Your task to perform on an android device: see tabs open on other devices in the chrome app Image 0: 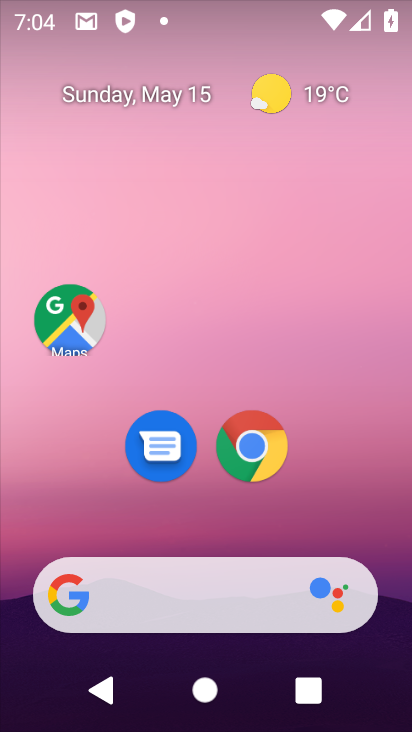
Step 0: drag from (265, 628) to (230, 35)
Your task to perform on an android device: see tabs open on other devices in the chrome app Image 1: 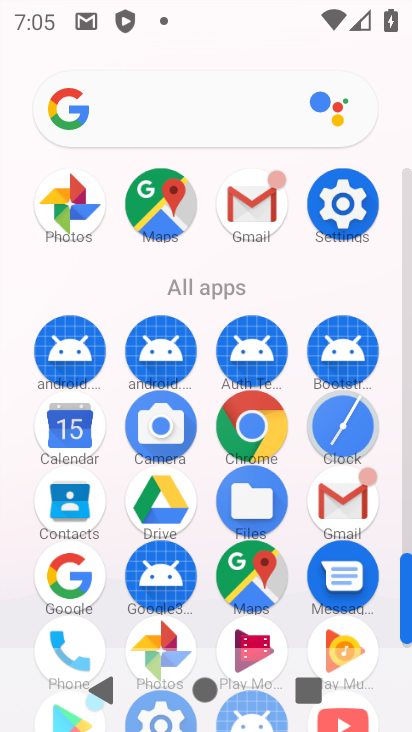
Step 1: click (257, 421)
Your task to perform on an android device: see tabs open on other devices in the chrome app Image 2: 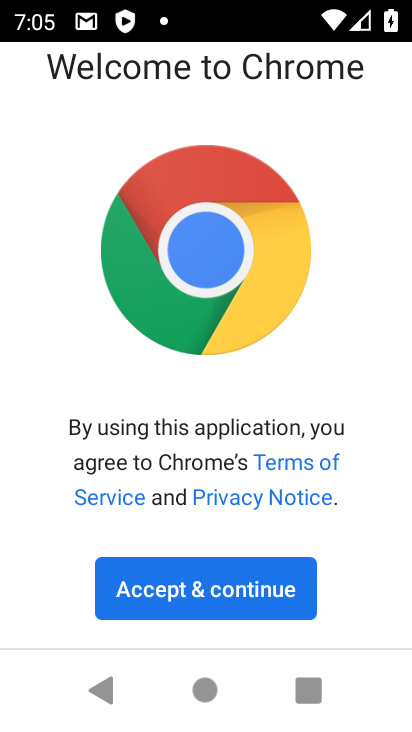
Step 2: click (266, 563)
Your task to perform on an android device: see tabs open on other devices in the chrome app Image 3: 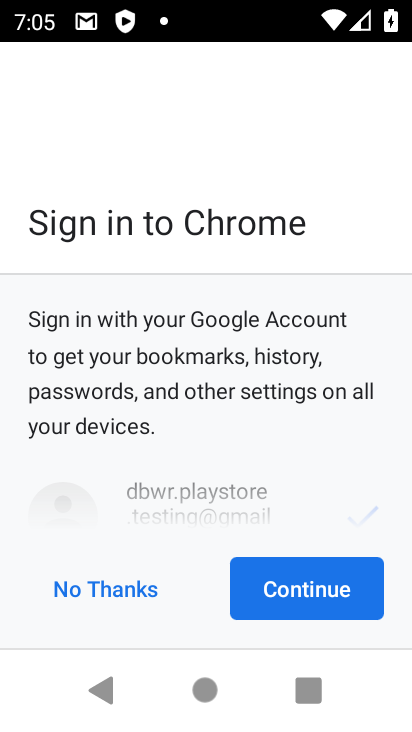
Step 3: click (283, 595)
Your task to perform on an android device: see tabs open on other devices in the chrome app Image 4: 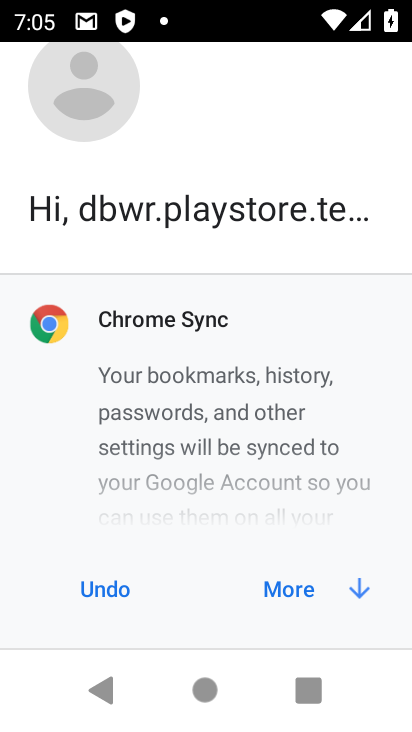
Step 4: click (349, 594)
Your task to perform on an android device: see tabs open on other devices in the chrome app Image 5: 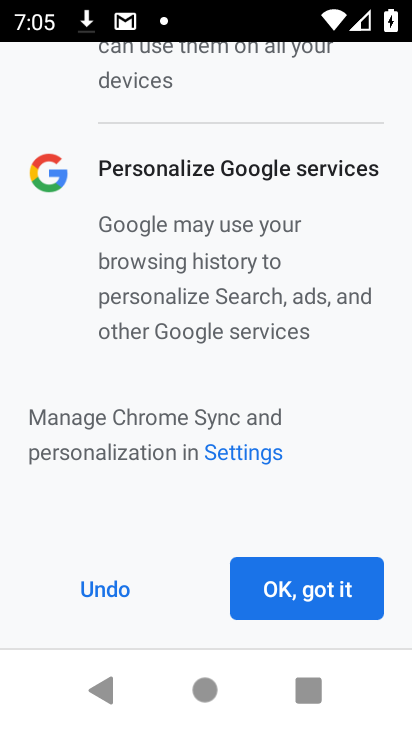
Step 5: click (329, 578)
Your task to perform on an android device: see tabs open on other devices in the chrome app Image 6: 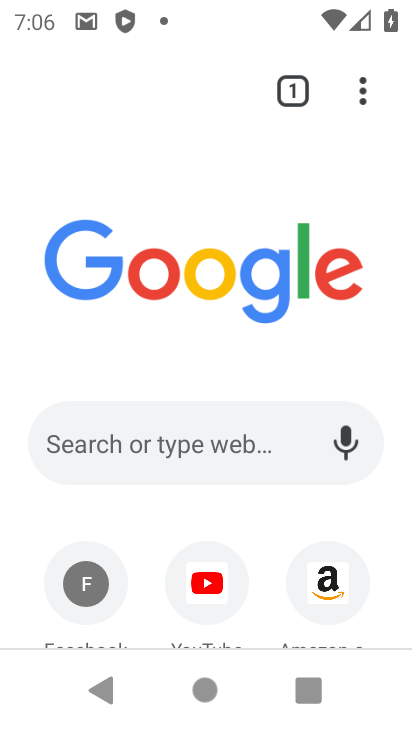
Step 6: click (295, 83)
Your task to perform on an android device: see tabs open on other devices in the chrome app Image 7: 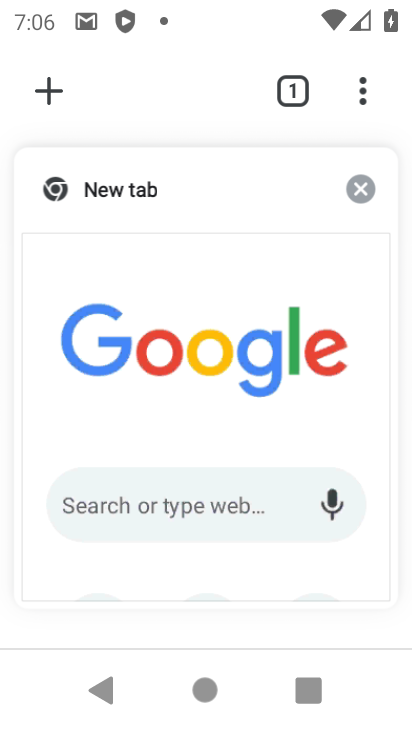
Step 7: click (47, 89)
Your task to perform on an android device: see tabs open on other devices in the chrome app Image 8: 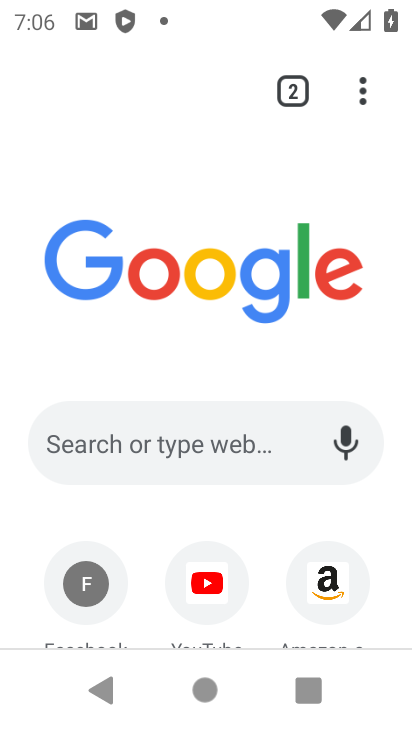
Step 8: task complete